Your task to perform on an android device: open app "Microsoft Authenticator" Image 0: 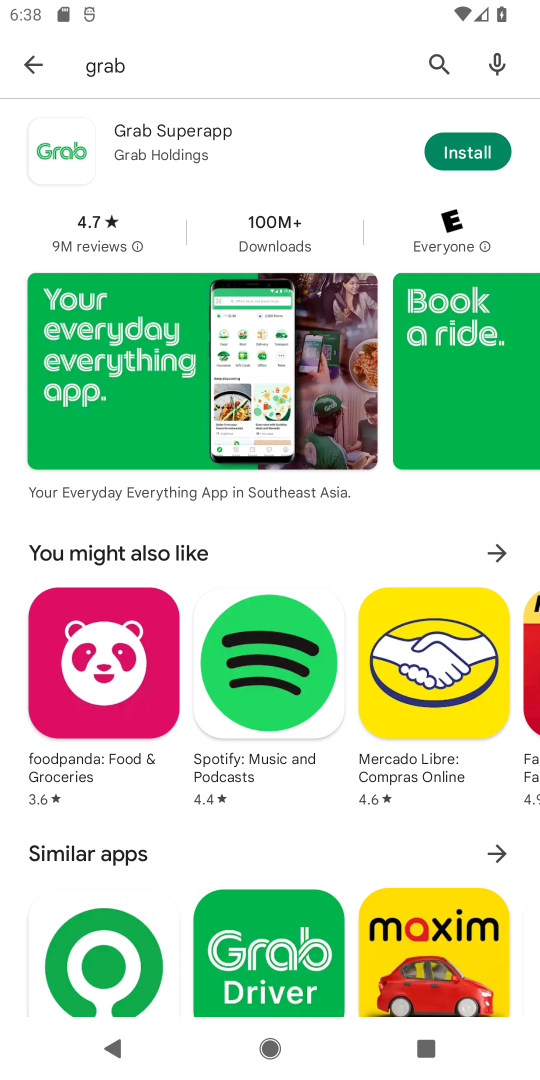
Step 0: click (432, 65)
Your task to perform on an android device: open app "Microsoft Authenticator" Image 1: 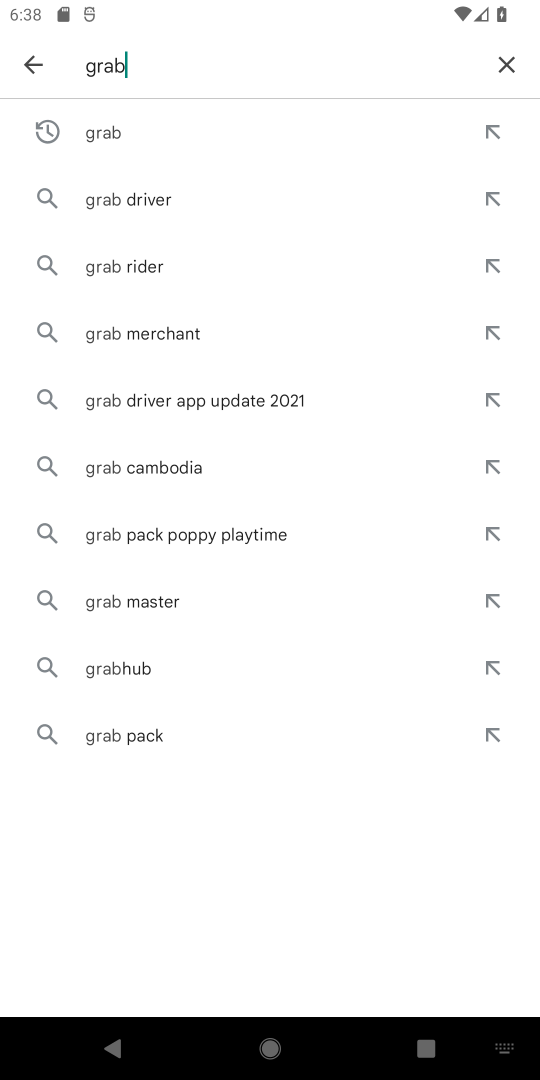
Step 1: click (504, 65)
Your task to perform on an android device: open app "Microsoft Authenticator" Image 2: 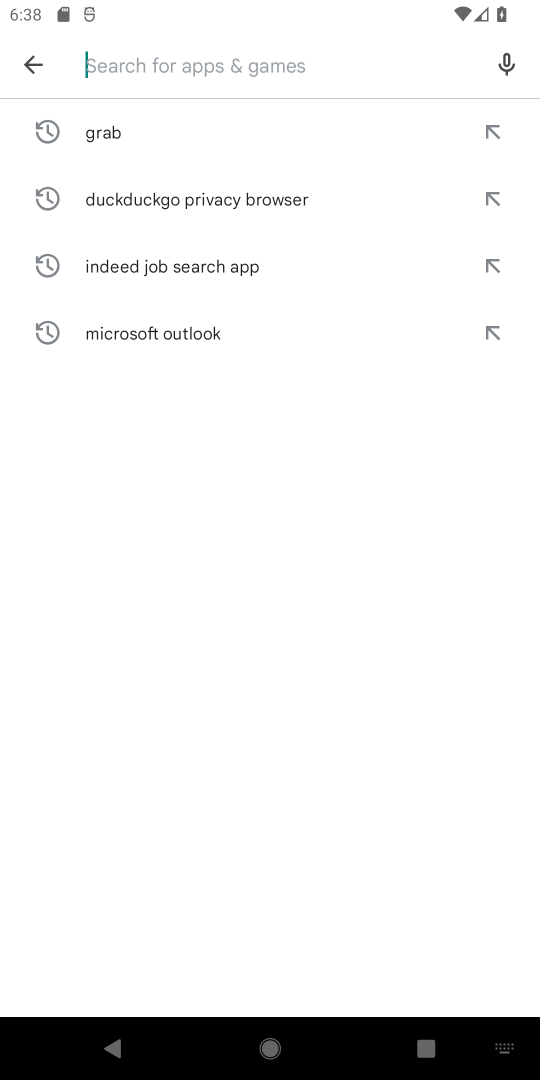
Step 2: type "Microsoft Authenticator"
Your task to perform on an android device: open app "Microsoft Authenticator" Image 3: 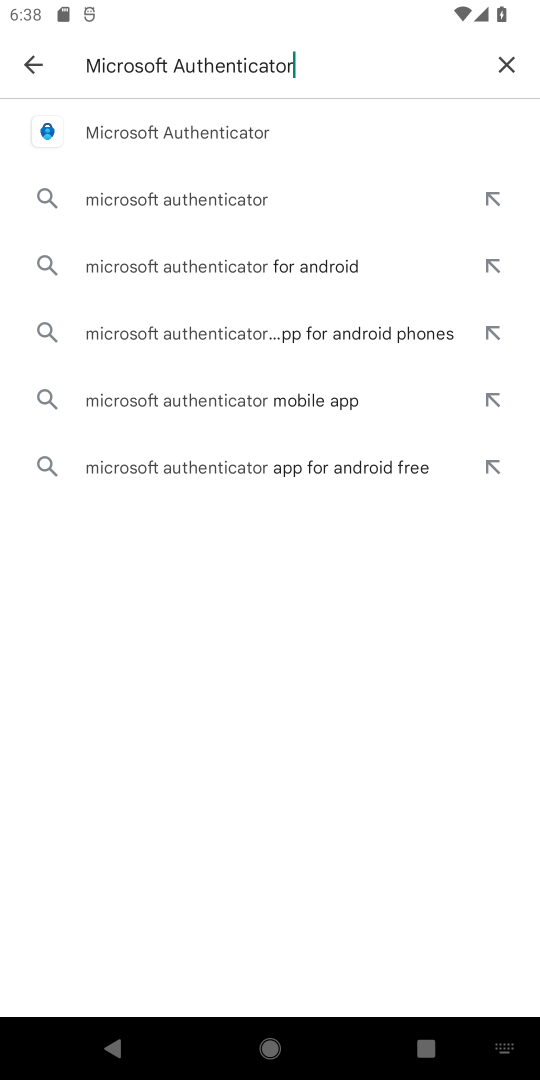
Step 3: click (208, 147)
Your task to perform on an android device: open app "Microsoft Authenticator" Image 4: 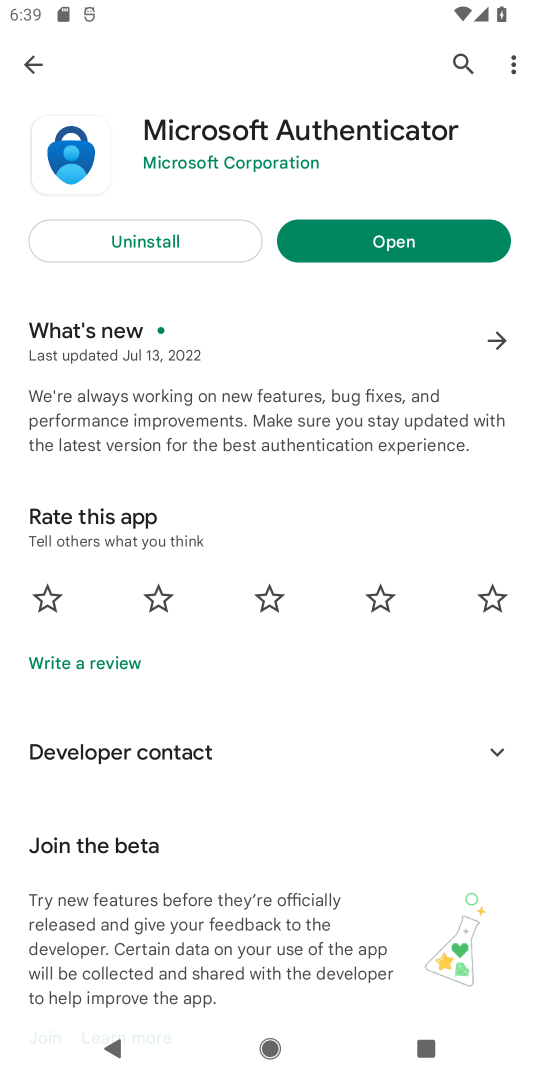
Step 4: click (391, 228)
Your task to perform on an android device: open app "Microsoft Authenticator" Image 5: 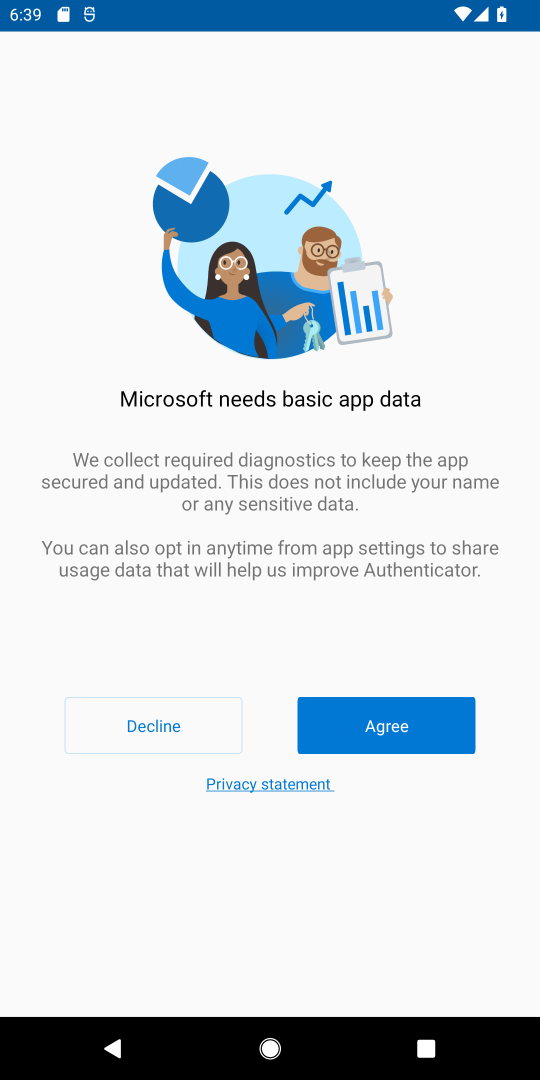
Step 5: task complete